Your task to perform on an android device: open a new tab in the chrome app Image 0: 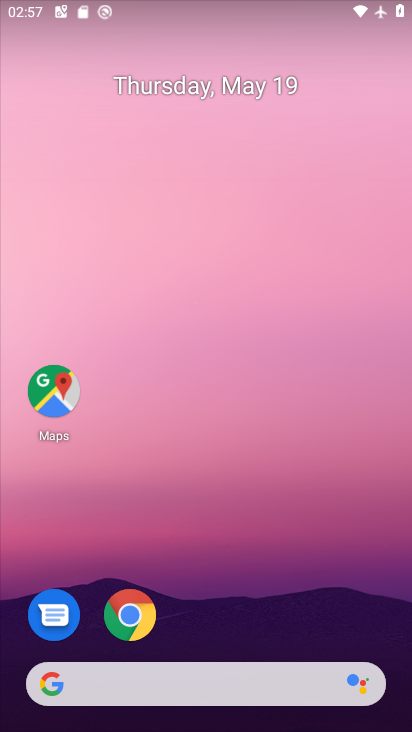
Step 0: drag from (264, 588) to (255, 37)
Your task to perform on an android device: open a new tab in the chrome app Image 1: 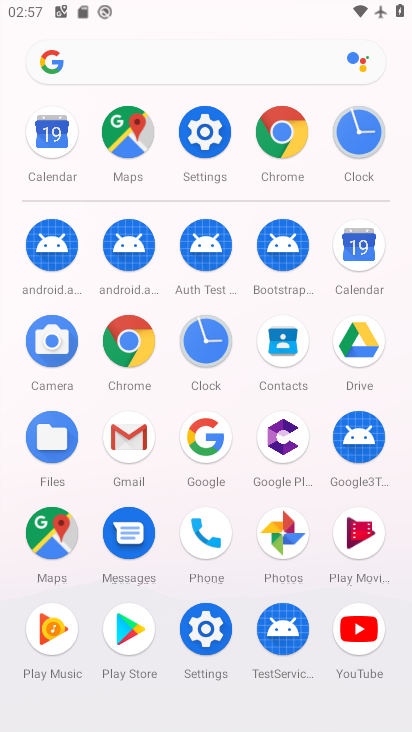
Step 1: drag from (17, 533) to (9, 175)
Your task to perform on an android device: open a new tab in the chrome app Image 2: 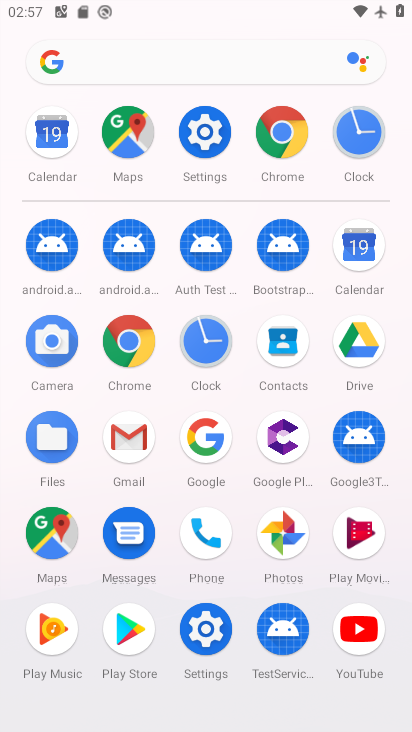
Step 2: click (127, 340)
Your task to perform on an android device: open a new tab in the chrome app Image 3: 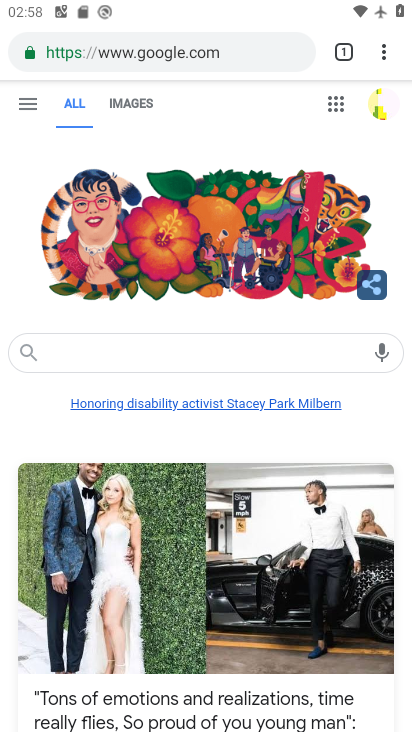
Step 3: task complete